Your task to perform on an android device: open chrome and create a bookmark for the current page Image 0: 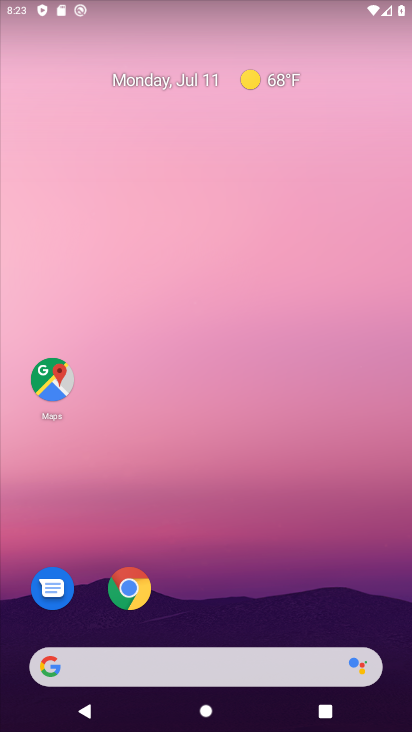
Step 0: click (140, 595)
Your task to perform on an android device: open chrome and create a bookmark for the current page Image 1: 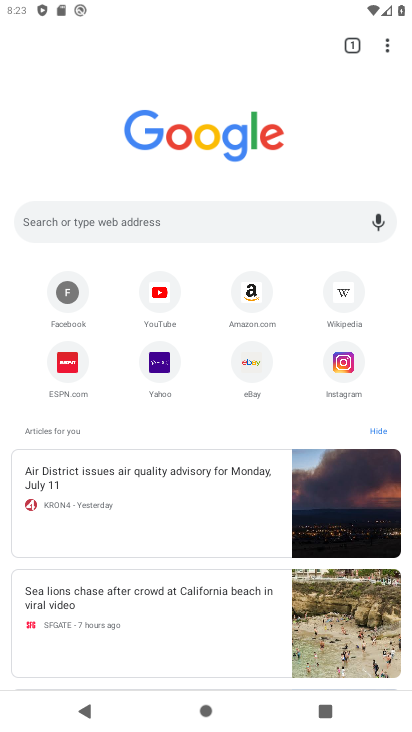
Step 1: task complete